Your task to perform on an android device: turn off airplane mode Image 0: 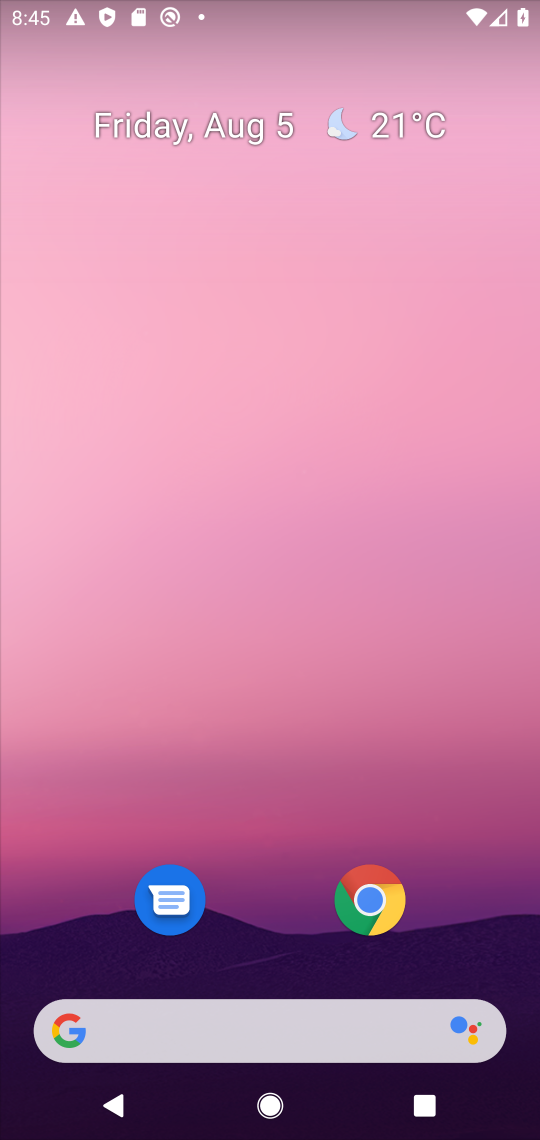
Step 0: drag from (266, 906) to (230, 1133)
Your task to perform on an android device: turn off airplane mode Image 1: 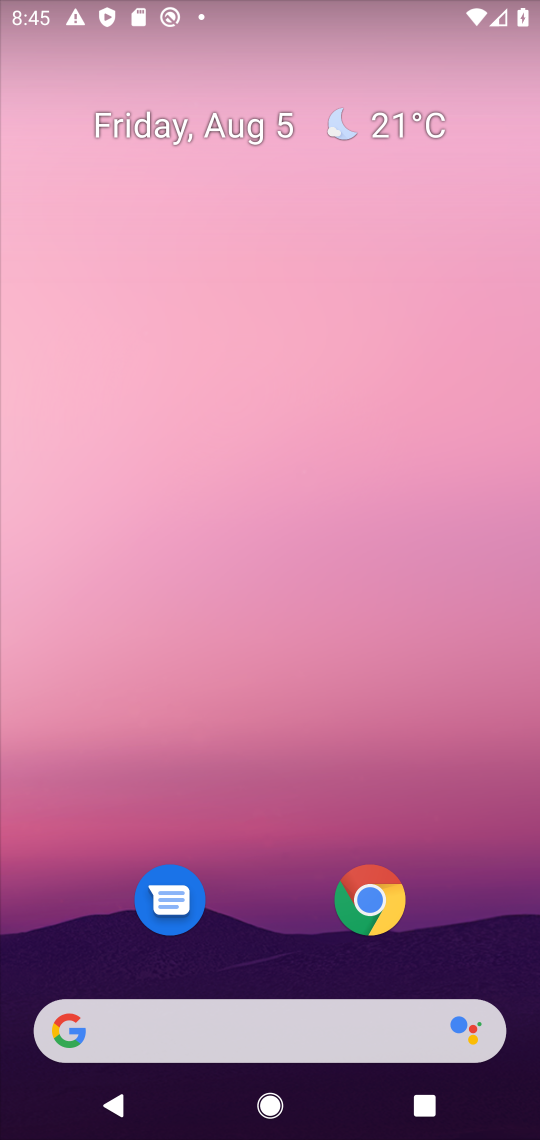
Step 1: drag from (503, 8) to (268, 1139)
Your task to perform on an android device: turn off airplane mode Image 2: 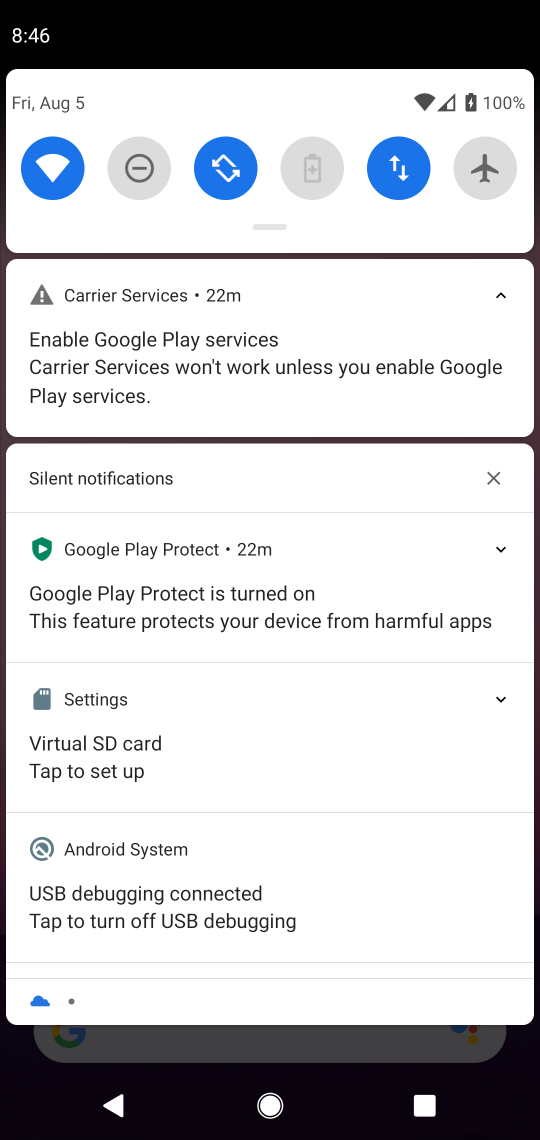
Step 2: click (467, 177)
Your task to perform on an android device: turn off airplane mode Image 3: 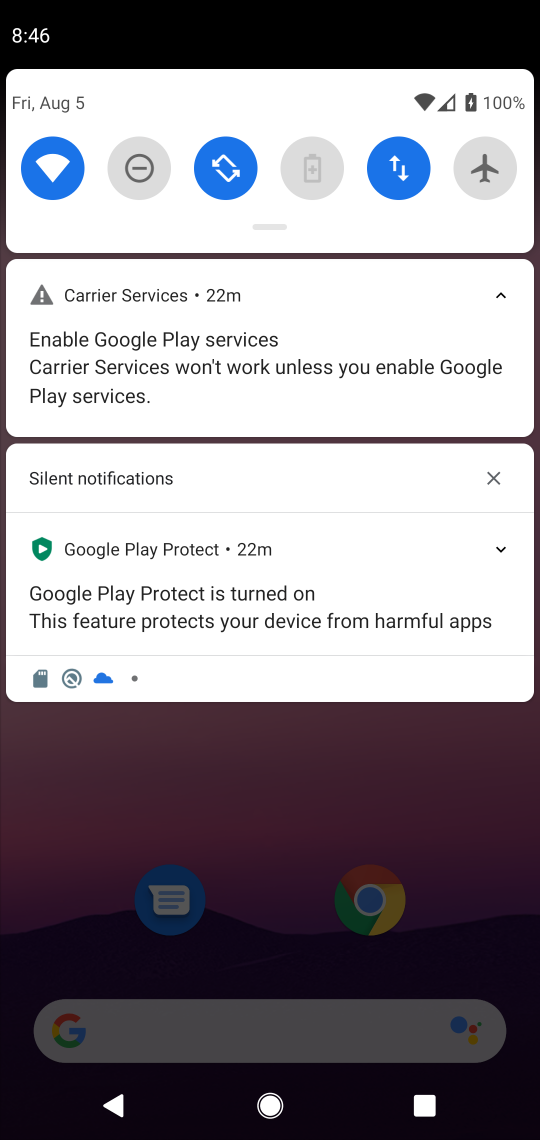
Step 3: task complete